Your task to perform on an android device: create a new album in the google photos Image 0: 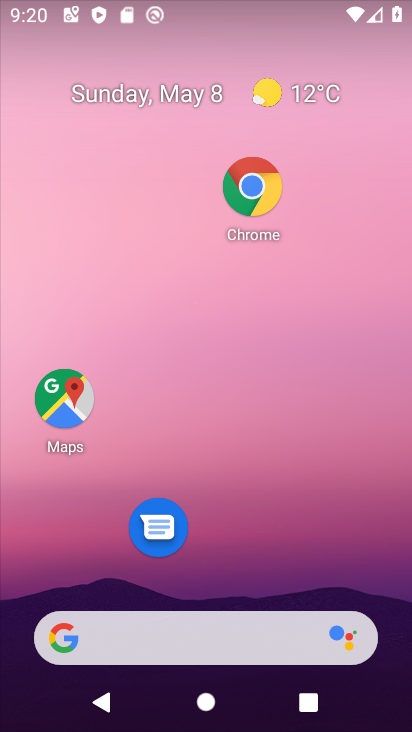
Step 0: drag from (334, 388) to (366, 257)
Your task to perform on an android device: create a new album in the google photos Image 1: 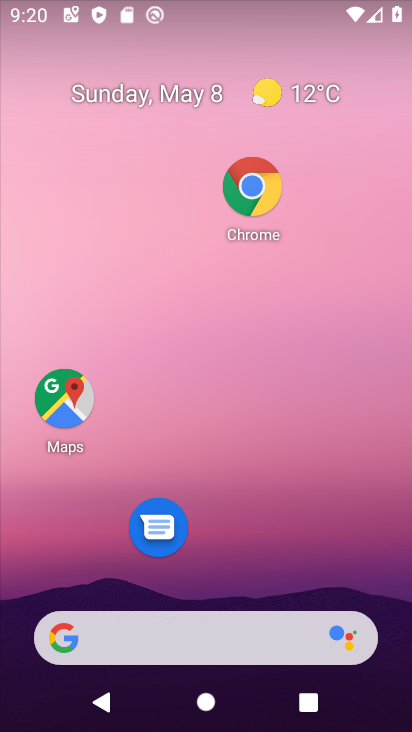
Step 1: drag from (282, 477) to (282, 297)
Your task to perform on an android device: create a new album in the google photos Image 2: 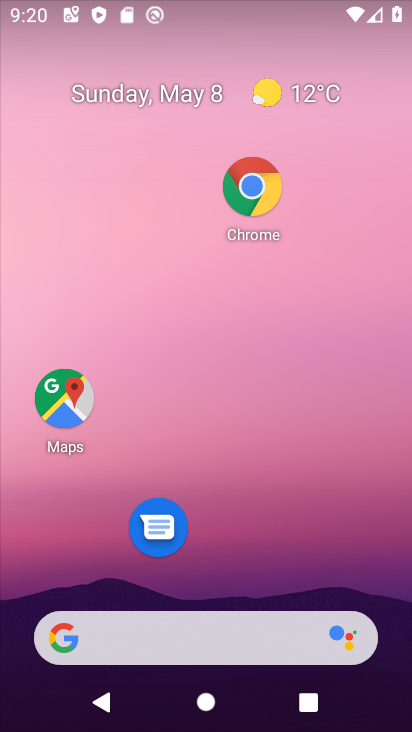
Step 2: drag from (250, 627) to (264, 239)
Your task to perform on an android device: create a new album in the google photos Image 3: 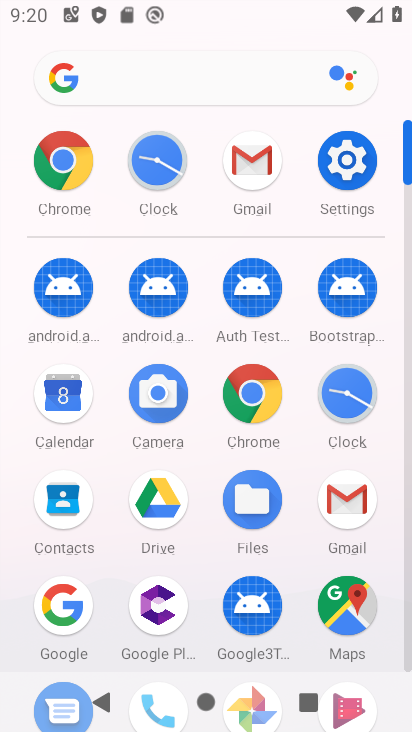
Step 3: drag from (199, 652) to (234, 280)
Your task to perform on an android device: create a new album in the google photos Image 4: 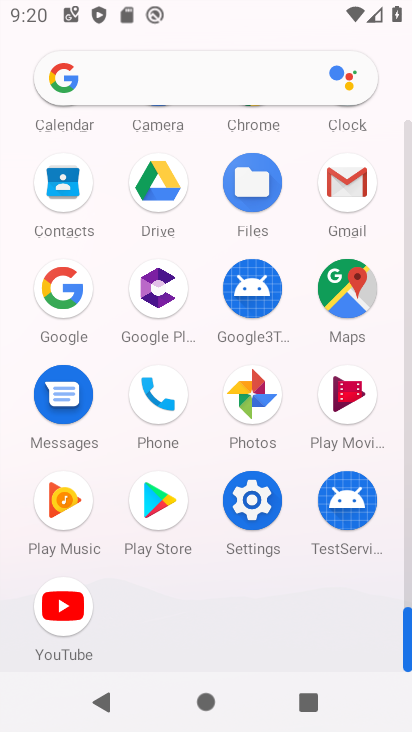
Step 4: click (255, 396)
Your task to perform on an android device: create a new album in the google photos Image 5: 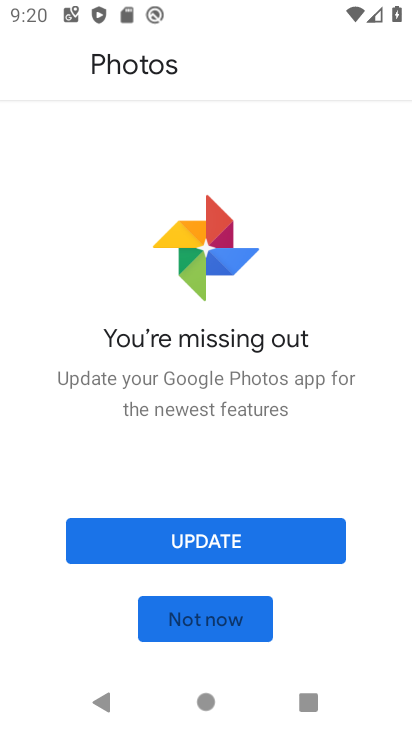
Step 5: click (210, 542)
Your task to perform on an android device: create a new album in the google photos Image 6: 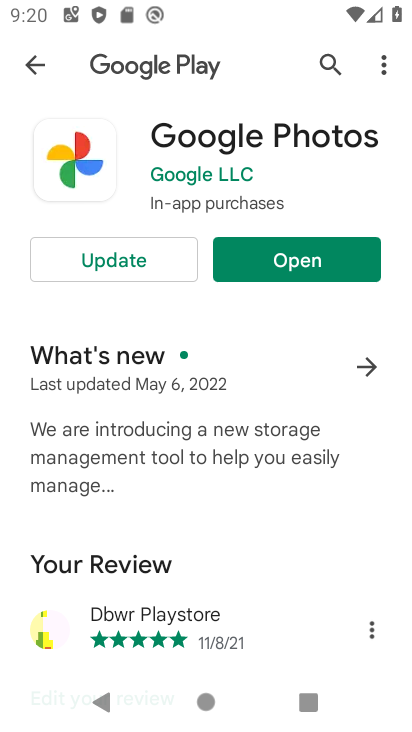
Step 6: press back button
Your task to perform on an android device: create a new album in the google photos Image 7: 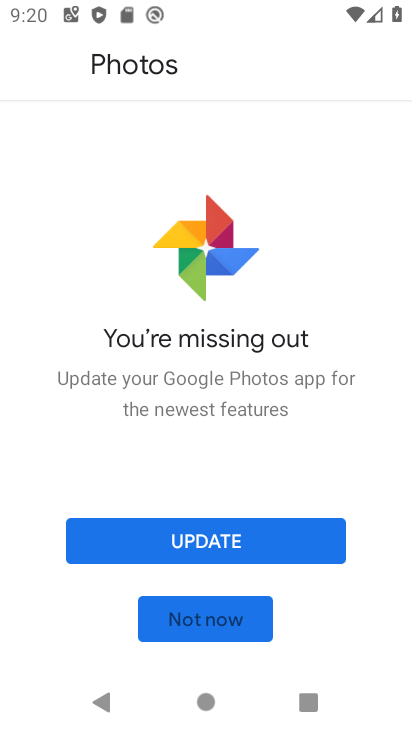
Step 7: click (200, 619)
Your task to perform on an android device: create a new album in the google photos Image 8: 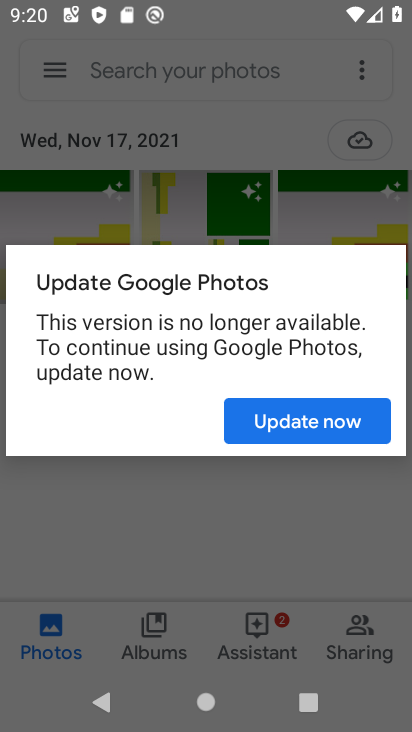
Step 8: click (280, 424)
Your task to perform on an android device: create a new album in the google photos Image 9: 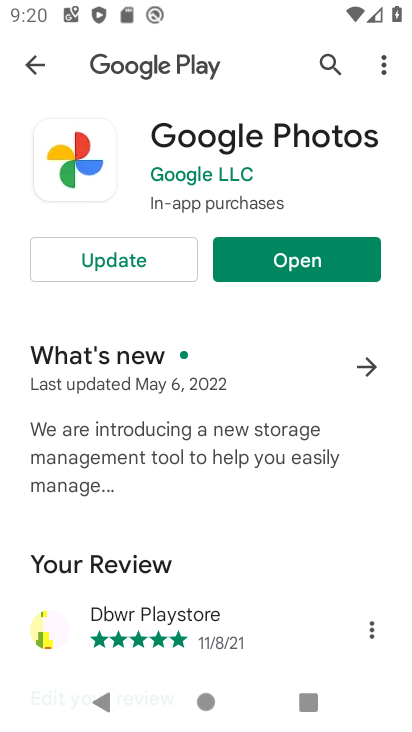
Step 9: press back button
Your task to perform on an android device: create a new album in the google photos Image 10: 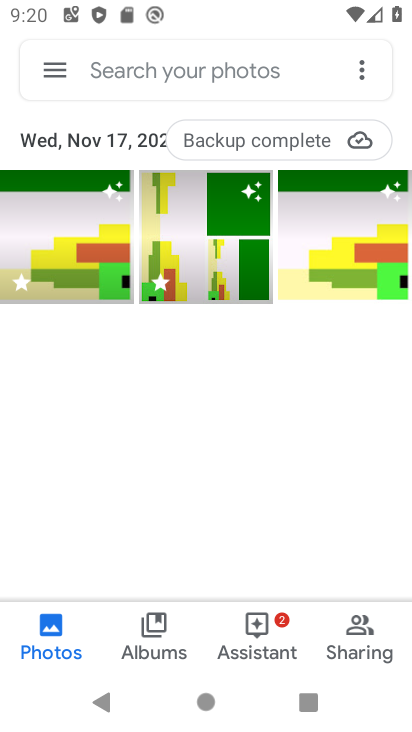
Step 10: click (45, 249)
Your task to perform on an android device: create a new album in the google photos Image 11: 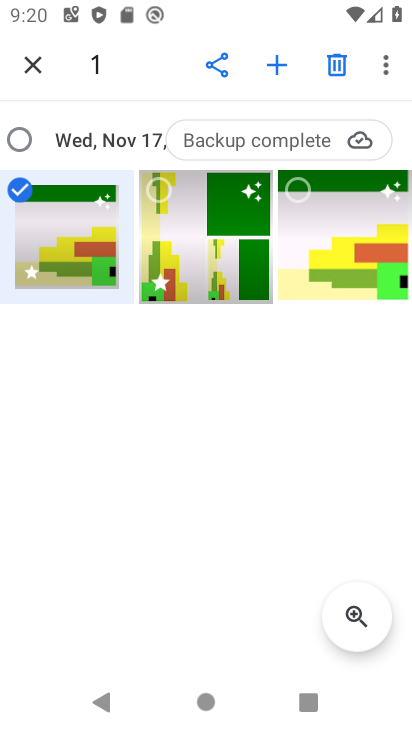
Step 11: click (271, 66)
Your task to perform on an android device: create a new album in the google photos Image 12: 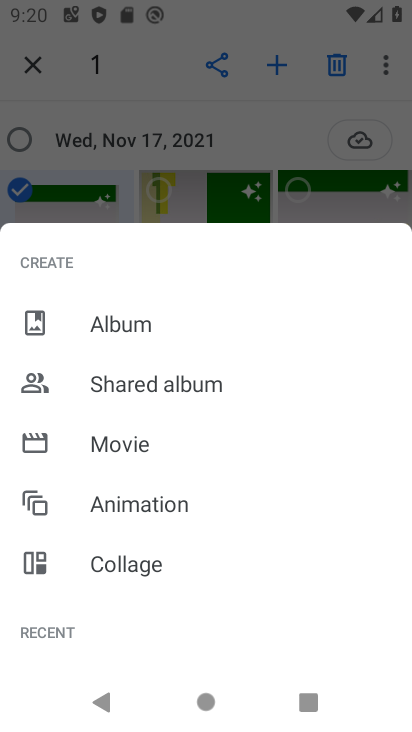
Step 12: click (136, 318)
Your task to perform on an android device: create a new album in the google photos Image 13: 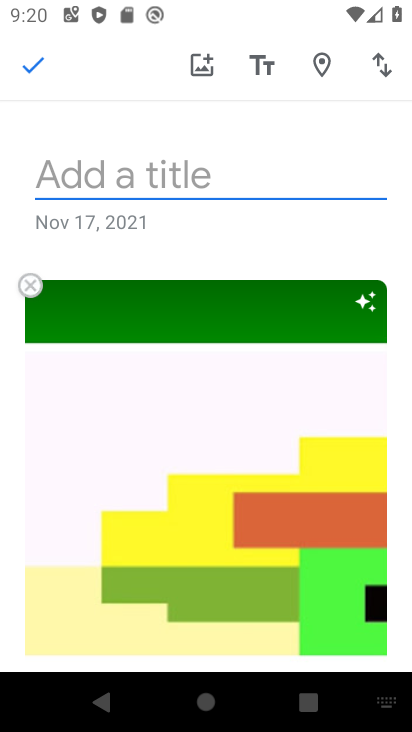
Step 13: type "bbbbbbbbb"
Your task to perform on an android device: create a new album in the google photos Image 14: 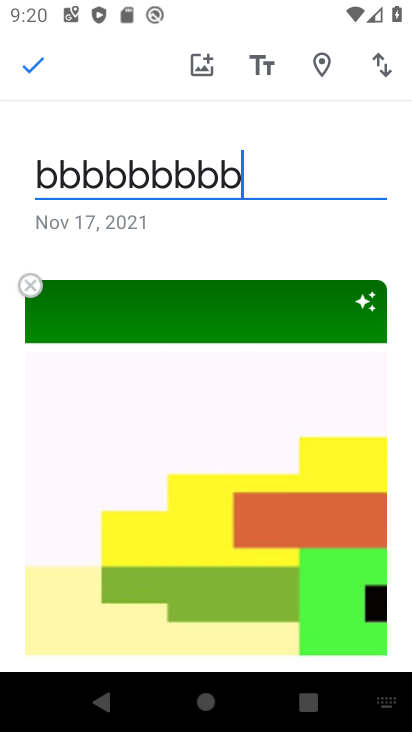
Step 14: click (21, 65)
Your task to perform on an android device: create a new album in the google photos Image 15: 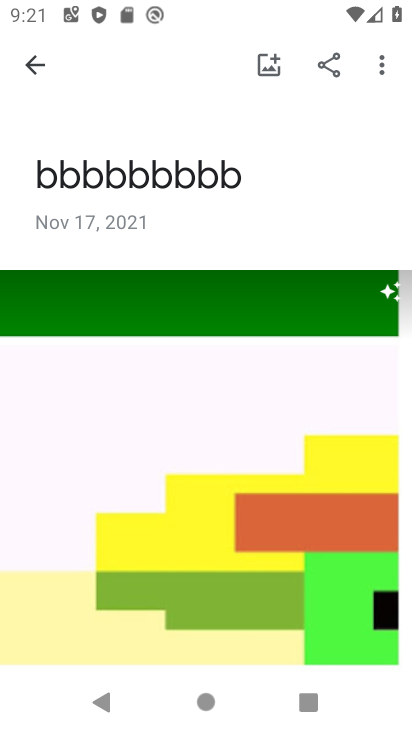
Step 15: task complete